Your task to perform on an android device: Go to accessibility settings Image 0: 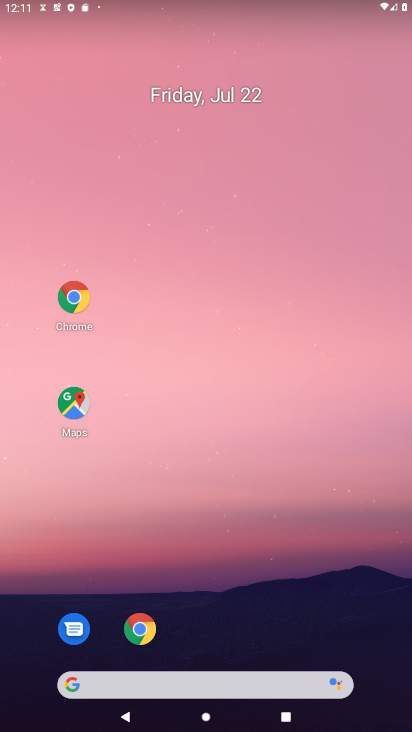
Step 0: drag from (219, 650) to (201, 134)
Your task to perform on an android device: Go to accessibility settings Image 1: 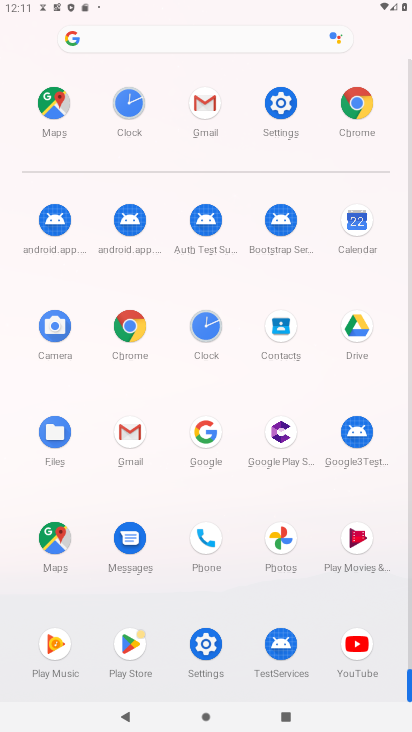
Step 1: click (202, 651)
Your task to perform on an android device: Go to accessibility settings Image 2: 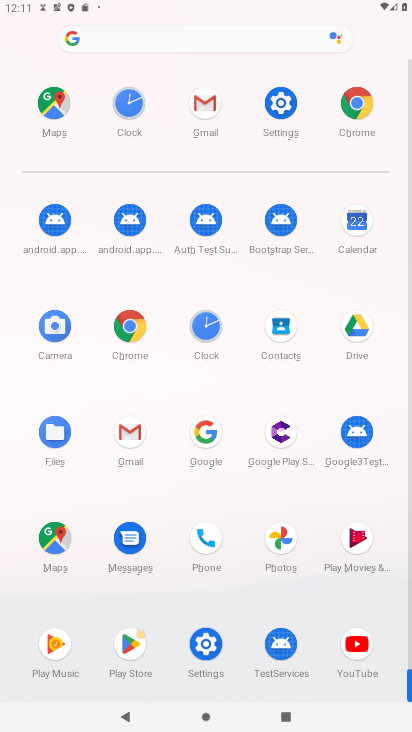
Step 2: click (202, 650)
Your task to perform on an android device: Go to accessibility settings Image 3: 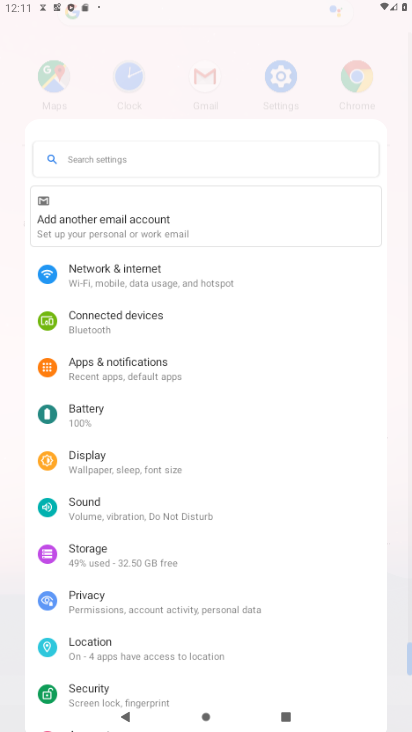
Step 3: click (196, 639)
Your task to perform on an android device: Go to accessibility settings Image 4: 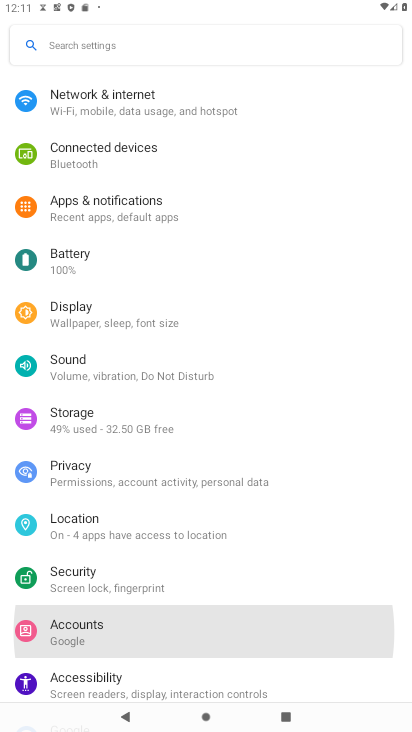
Step 4: click (209, 613)
Your task to perform on an android device: Go to accessibility settings Image 5: 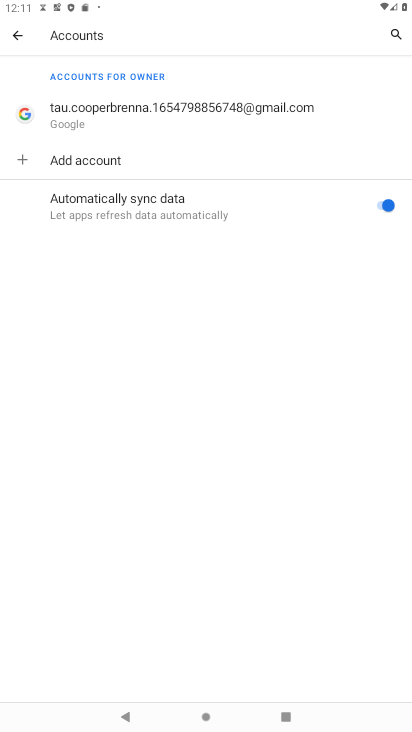
Step 5: click (24, 33)
Your task to perform on an android device: Go to accessibility settings Image 6: 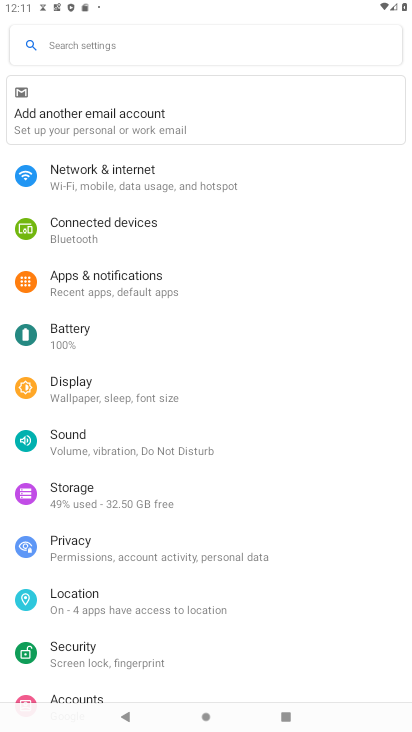
Step 6: drag from (143, 527) to (140, 275)
Your task to perform on an android device: Go to accessibility settings Image 7: 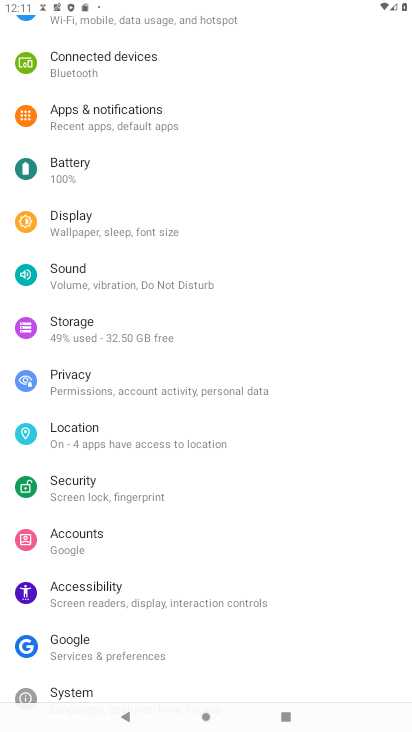
Step 7: drag from (148, 494) to (135, 186)
Your task to perform on an android device: Go to accessibility settings Image 8: 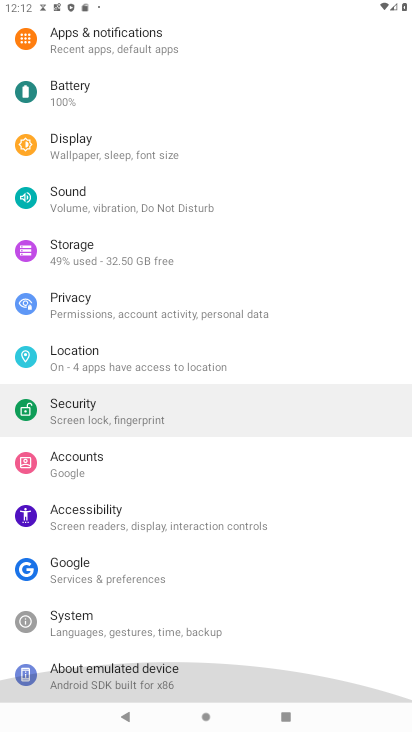
Step 8: drag from (140, 472) to (179, 166)
Your task to perform on an android device: Go to accessibility settings Image 9: 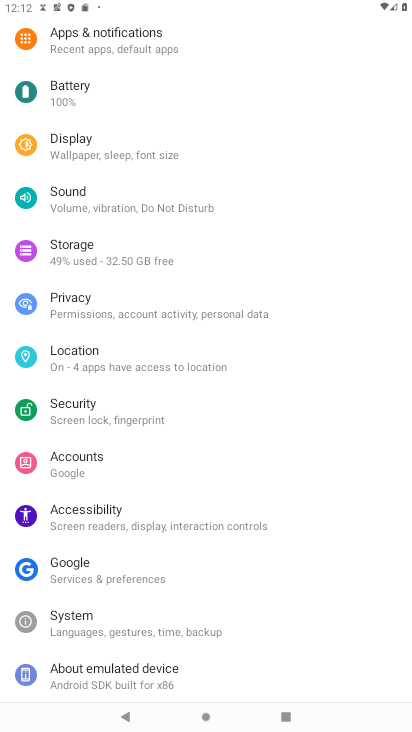
Step 9: drag from (151, 546) to (148, 280)
Your task to perform on an android device: Go to accessibility settings Image 10: 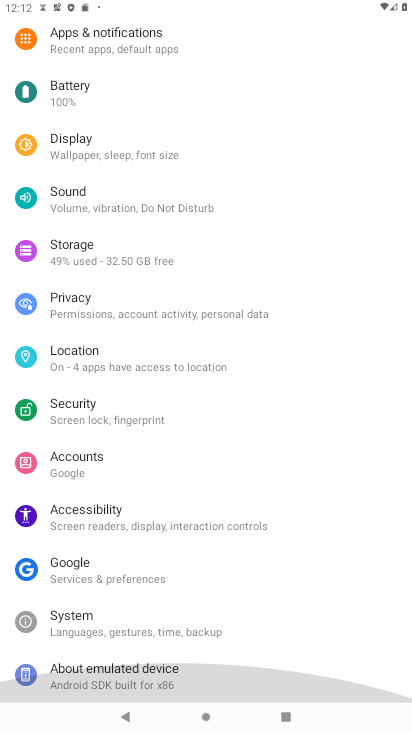
Step 10: drag from (119, 448) to (114, 178)
Your task to perform on an android device: Go to accessibility settings Image 11: 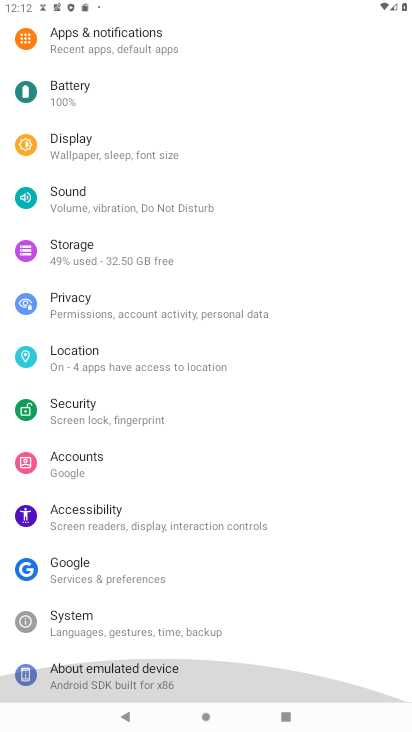
Step 11: drag from (106, 419) to (127, 165)
Your task to perform on an android device: Go to accessibility settings Image 12: 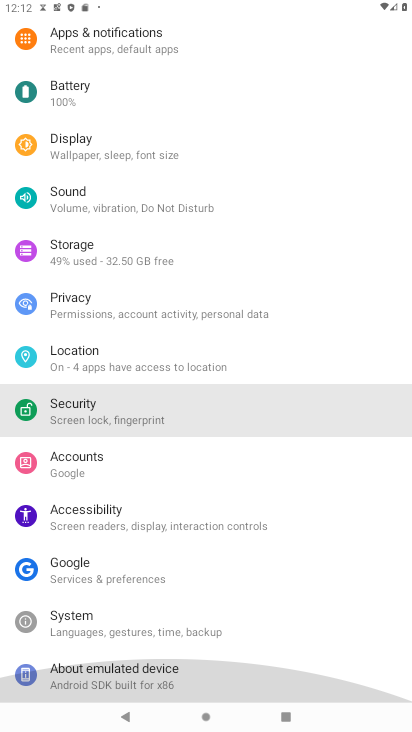
Step 12: drag from (132, 404) to (143, 162)
Your task to perform on an android device: Go to accessibility settings Image 13: 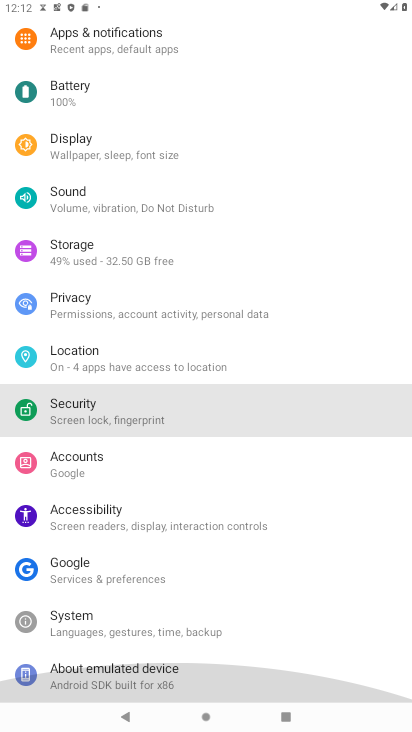
Step 13: drag from (150, 380) to (165, 191)
Your task to perform on an android device: Go to accessibility settings Image 14: 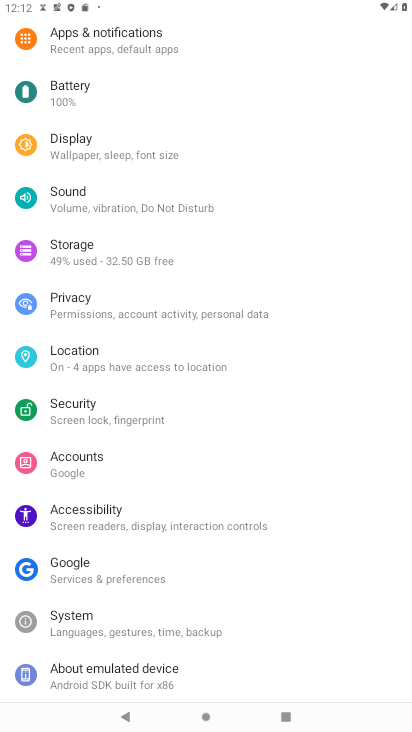
Step 14: click (69, 527)
Your task to perform on an android device: Go to accessibility settings Image 15: 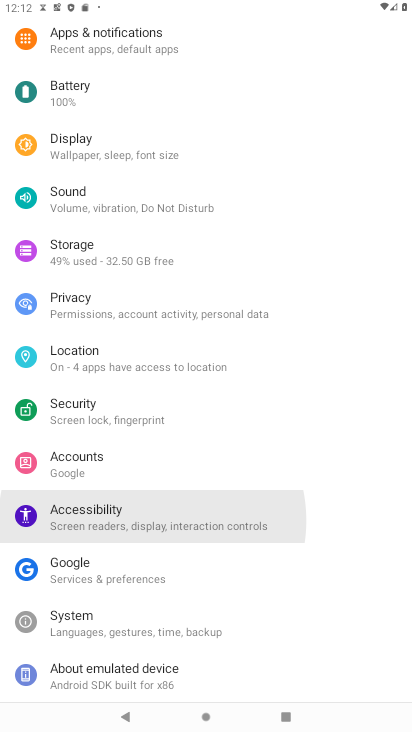
Step 15: click (67, 521)
Your task to perform on an android device: Go to accessibility settings Image 16: 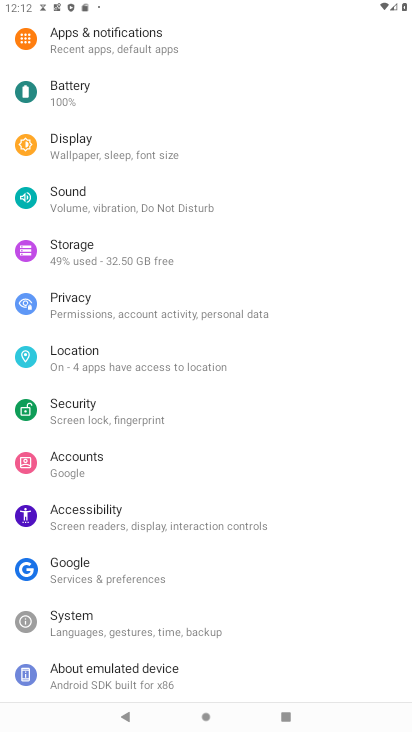
Step 16: click (66, 521)
Your task to perform on an android device: Go to accessibility settings Image 17: 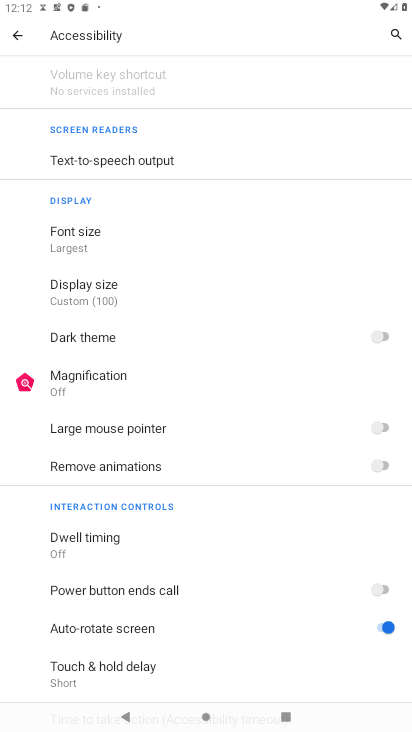
Step 17: task complete